Your task to perform on an android device: set the stopwatch Image 0: 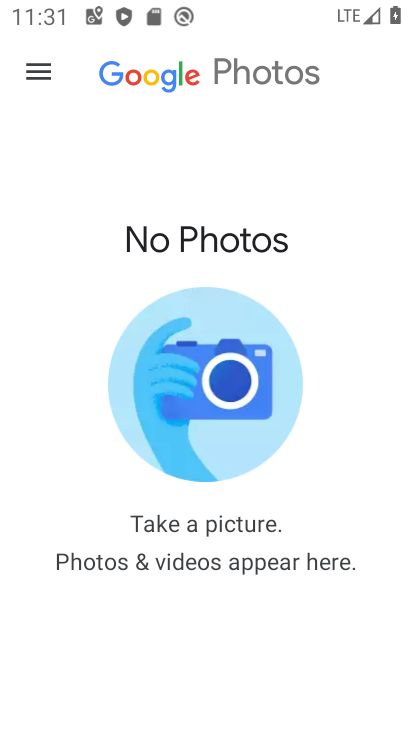
Step 0: press home button
Your task to perform on an android device: set the stopwatch Image 1: 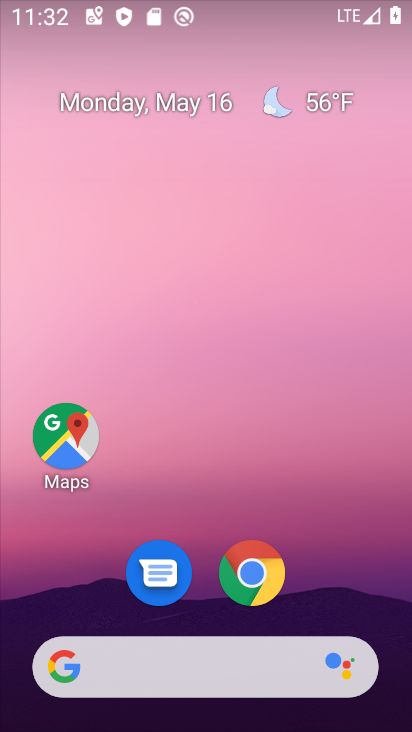
Step 1: drag from (244, 707) to (341, 210)
Your task to perform on an android device: set the stopwatch Image 2: 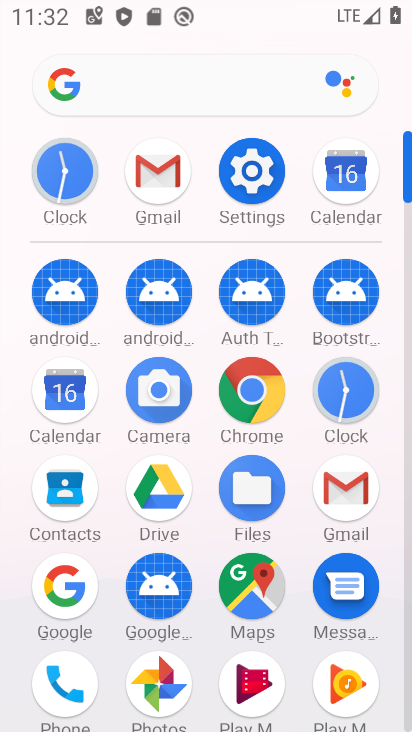
Step 2: click (321, 370)
Your task to perform on an android device: set the stopwatch Image 3: 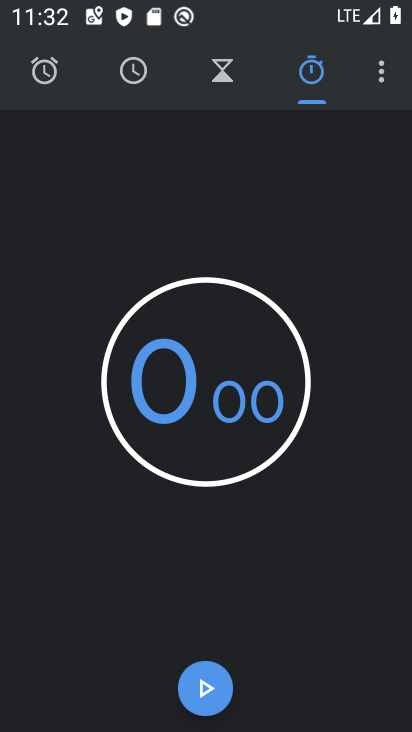
Step 3: click (204, 678)
Your task to perform on an android device: set the stopwatch Image 4: 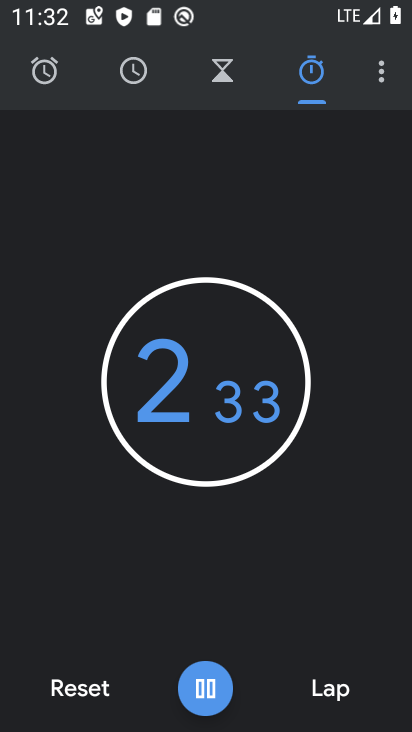
Step 4: click (194, 680)
Your task to perform on an android device: set the stopwatch Image 5: 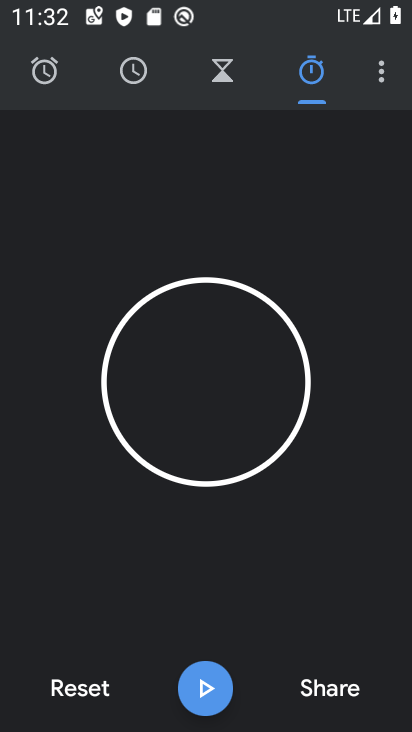
Step 5: task complete